Your task to perform on an android device: Go to Android settings Image 0: 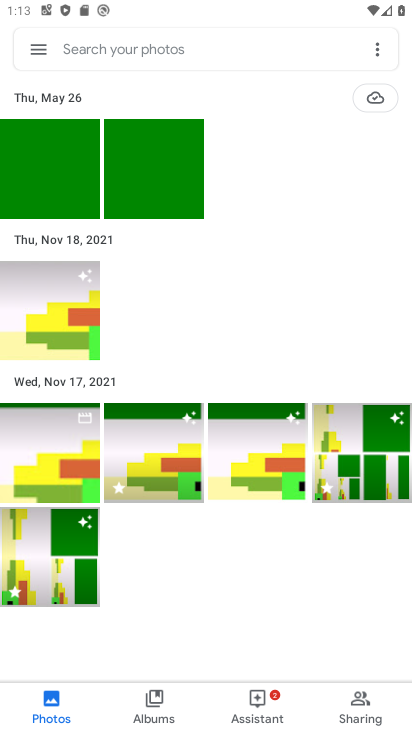
Step 0: press home button
Your task to perform on an android device: Go to Android settings Image 1: 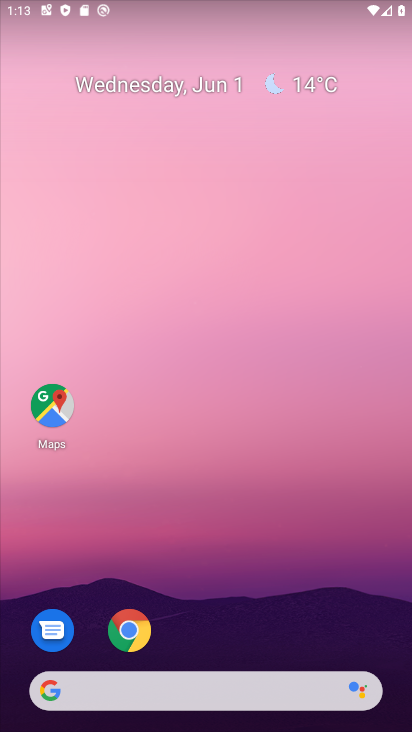
Step 1: drag from (215, 637) to (203, 94)
Your task to perform on an android device: Go to Android settings Image 2: 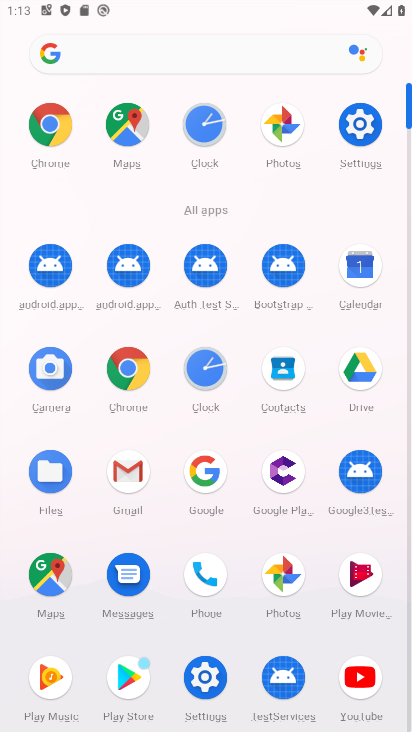
Step 2: click (357, 120)
Your task to perform on an android device: Go to Android settings Image 3: 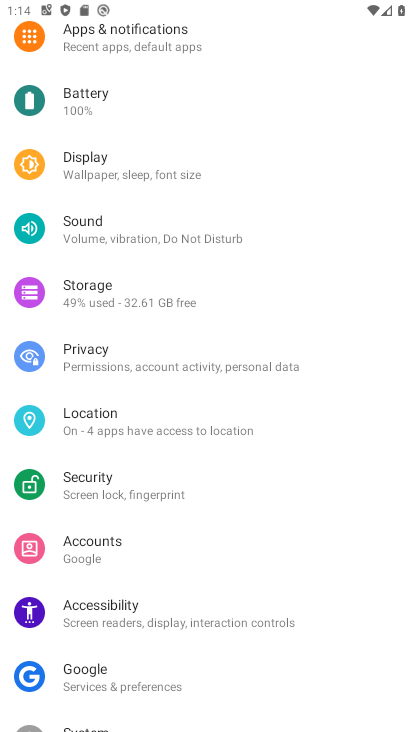
Step 3: drag from (154, 655) to (162, 87)
Your task to perform on an android device: Go to Android settings Image 4: 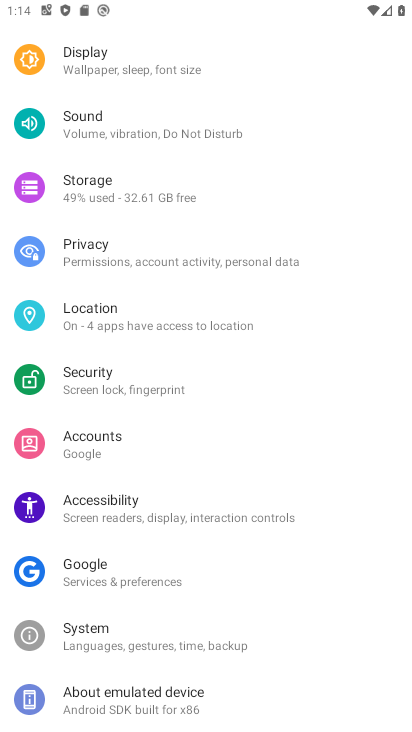
Step 4: click (160, 694)
Your task to perform on an android device: Go to Android settings Image 5: 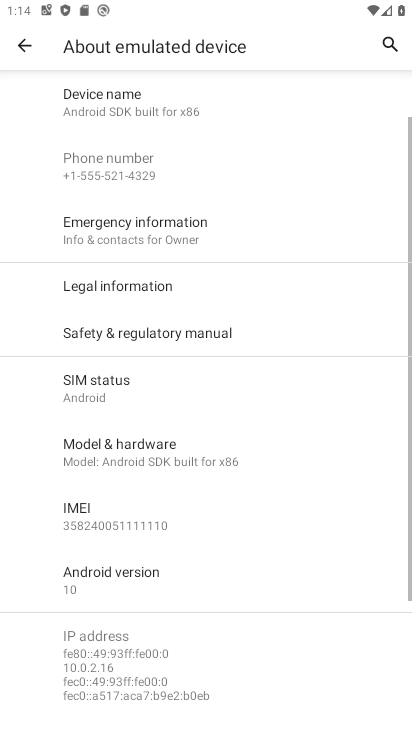
Step 5: click (166, 586)
Your task to perform on an android device: Go to Android settings Image 6: 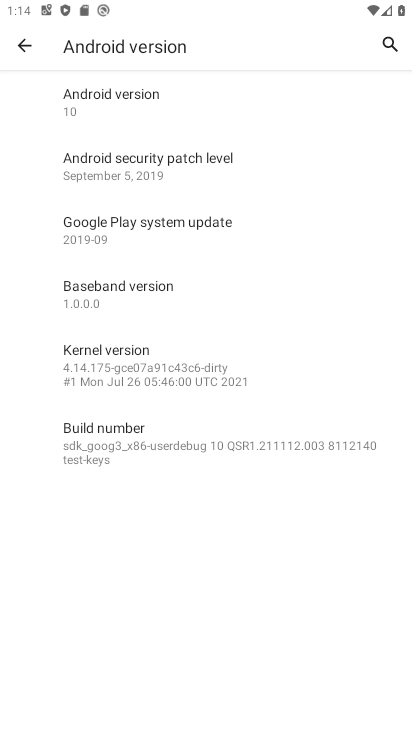
Step 6: task complete